Your task to perform on an android device: open app "Speedtest by Ookla" (install if not already installed) Image 0: 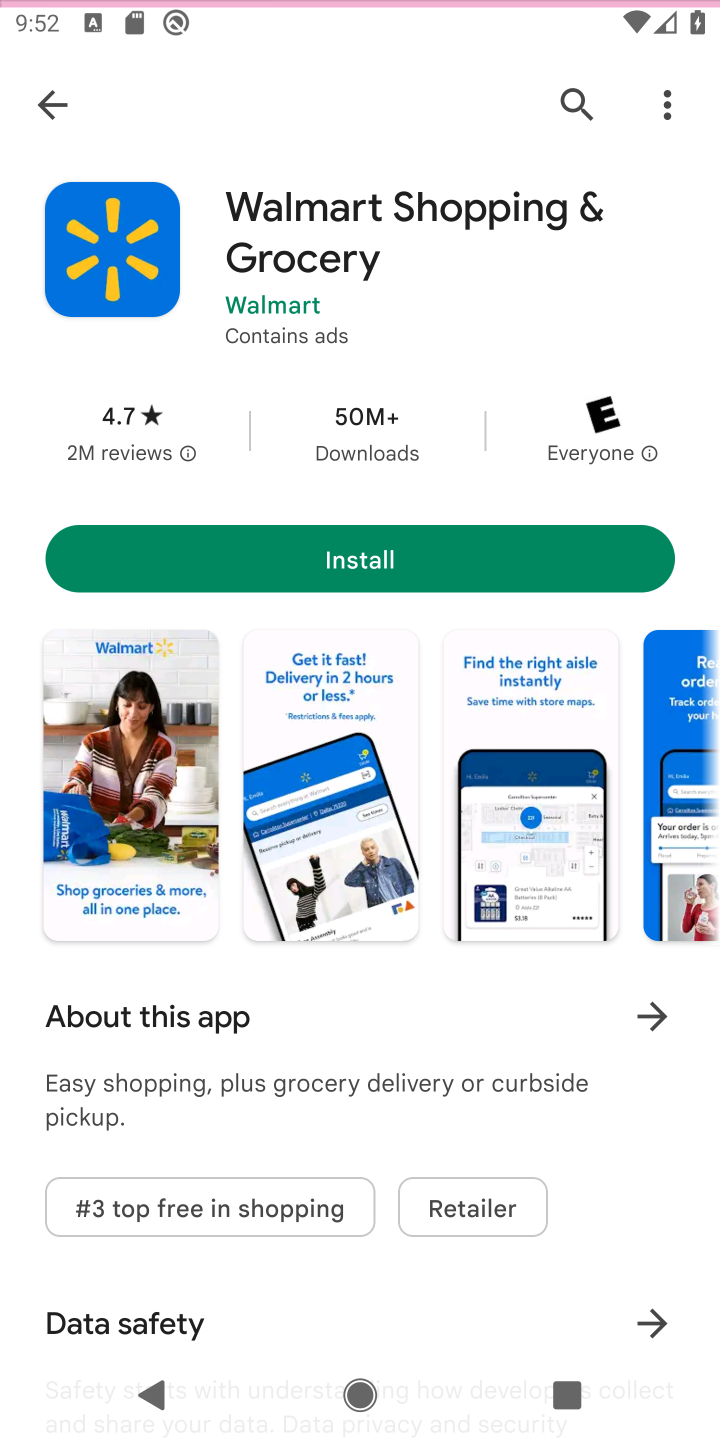
Step 0: press home button
Your task to perform on an android device: open app "Speedtest by Ookla" (install if not already installed) Image 1: 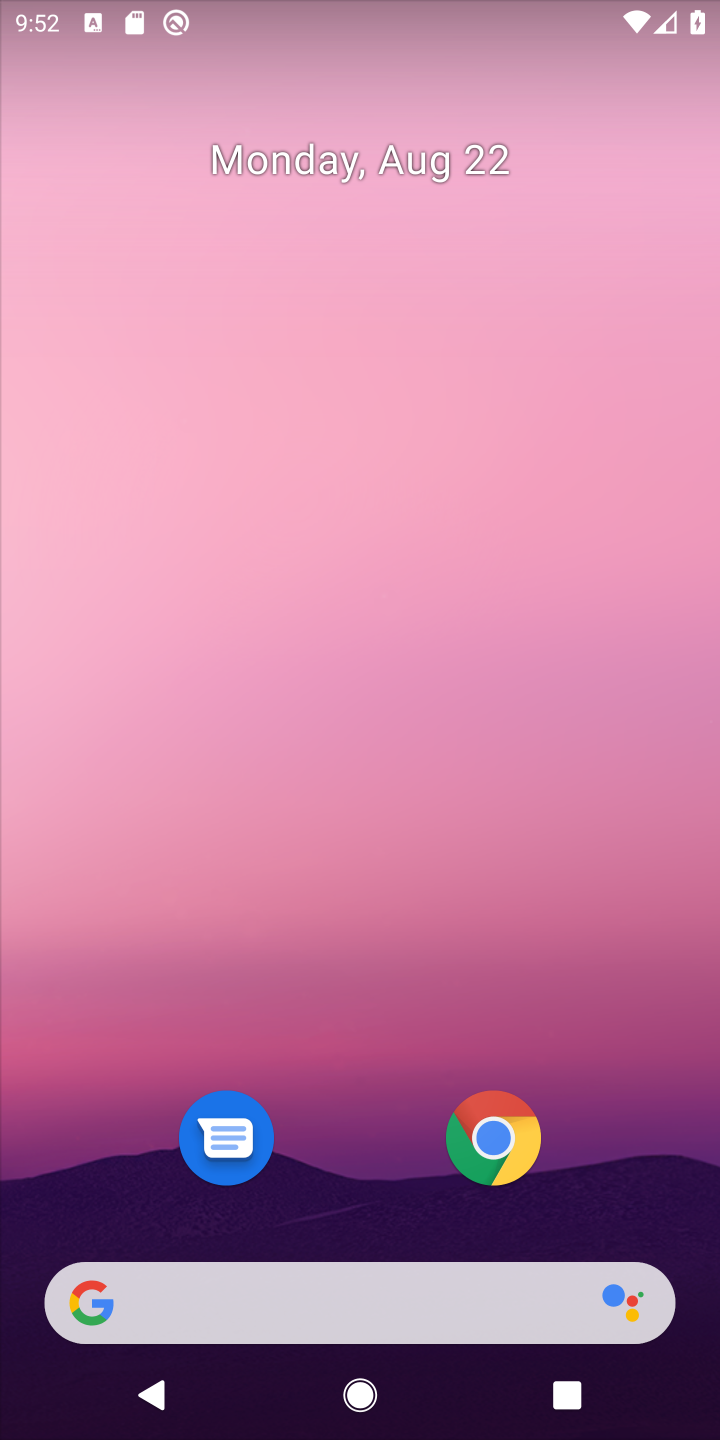
Step 1: drag from (380, 1188) to (388, 10)
Your task to perform on an android device: open app "Speedtest by Ookla" (install if not already installed) Image 2: 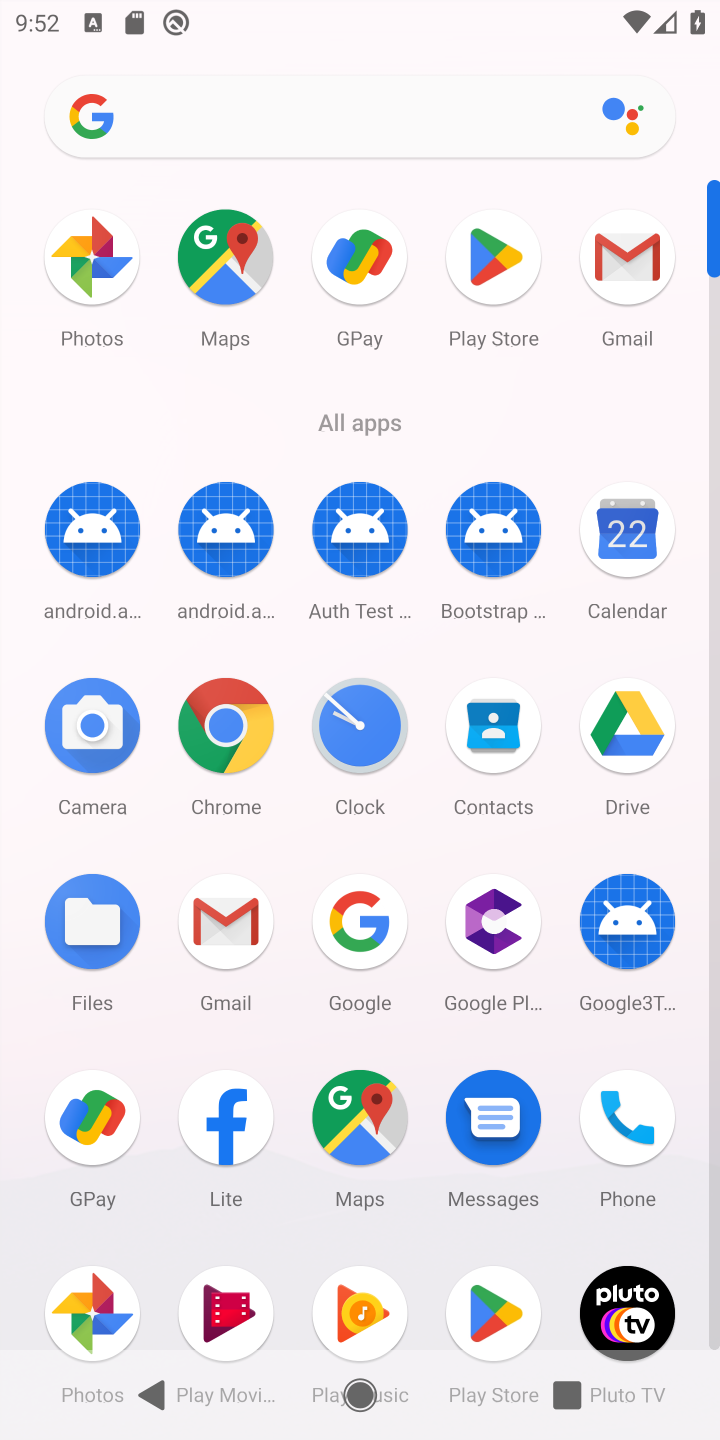
Step 2: click (490, 250)
Your task to perform on an android device: open app "Speedtest by Ookla" (install if not already installed) Image 3: 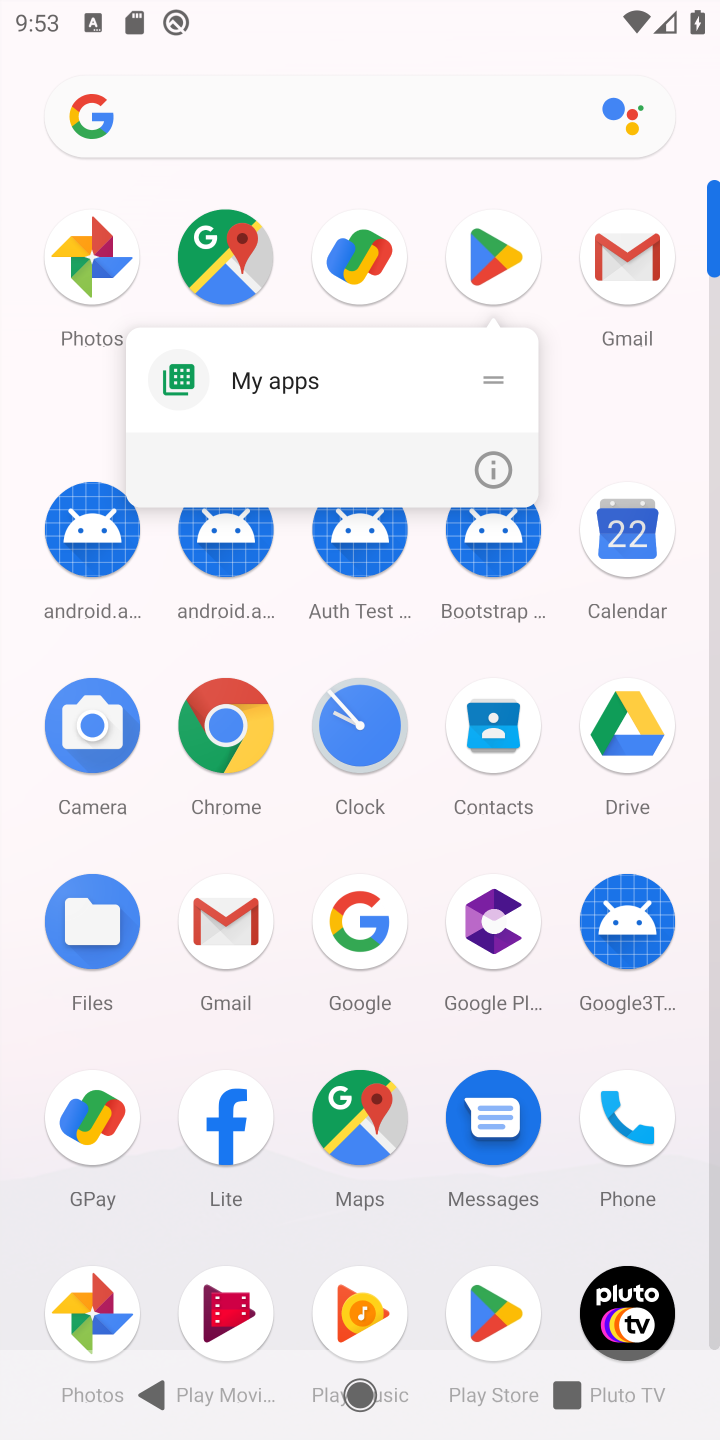
Step 3: click (490, 250)
Your task to perform on an android device: open app "Speedtest by Ookla" (install if not already installed) Image 4: 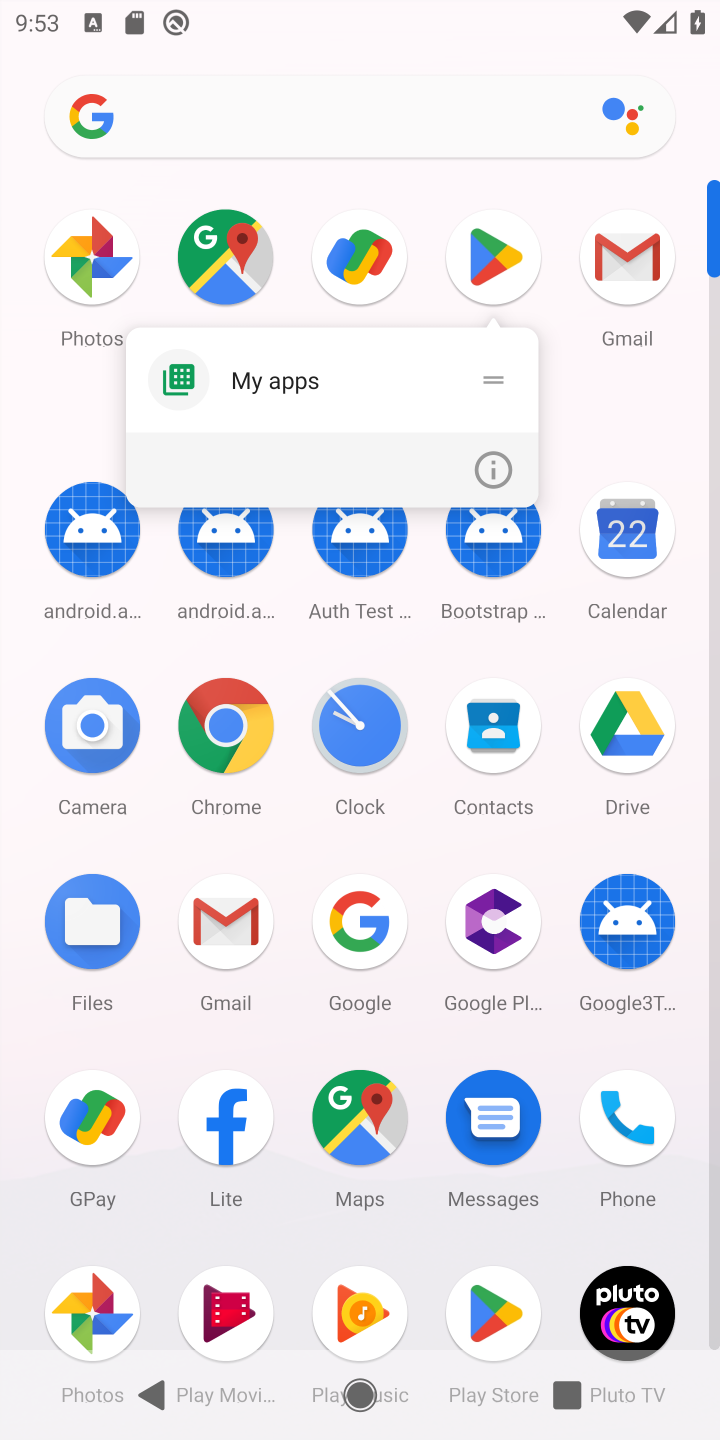
Step 4: click (490, 250)
Your task to perform on an android device: open app "Speedtest by Ookla" (install if not already installed) Image 5: 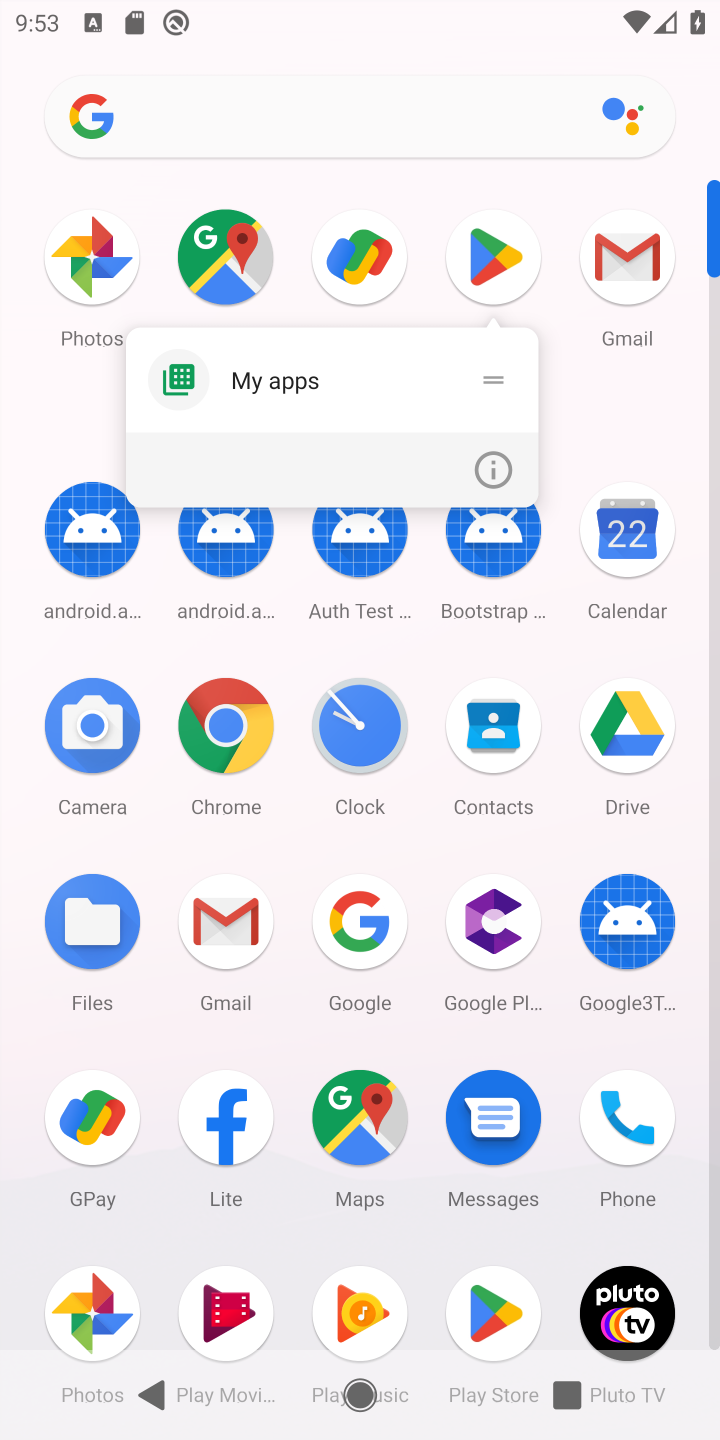
Step 5: click (490, 250)
Your task to perform on an android device: open app "Speedtest by Ookla" (install if not already installed) Image 6: 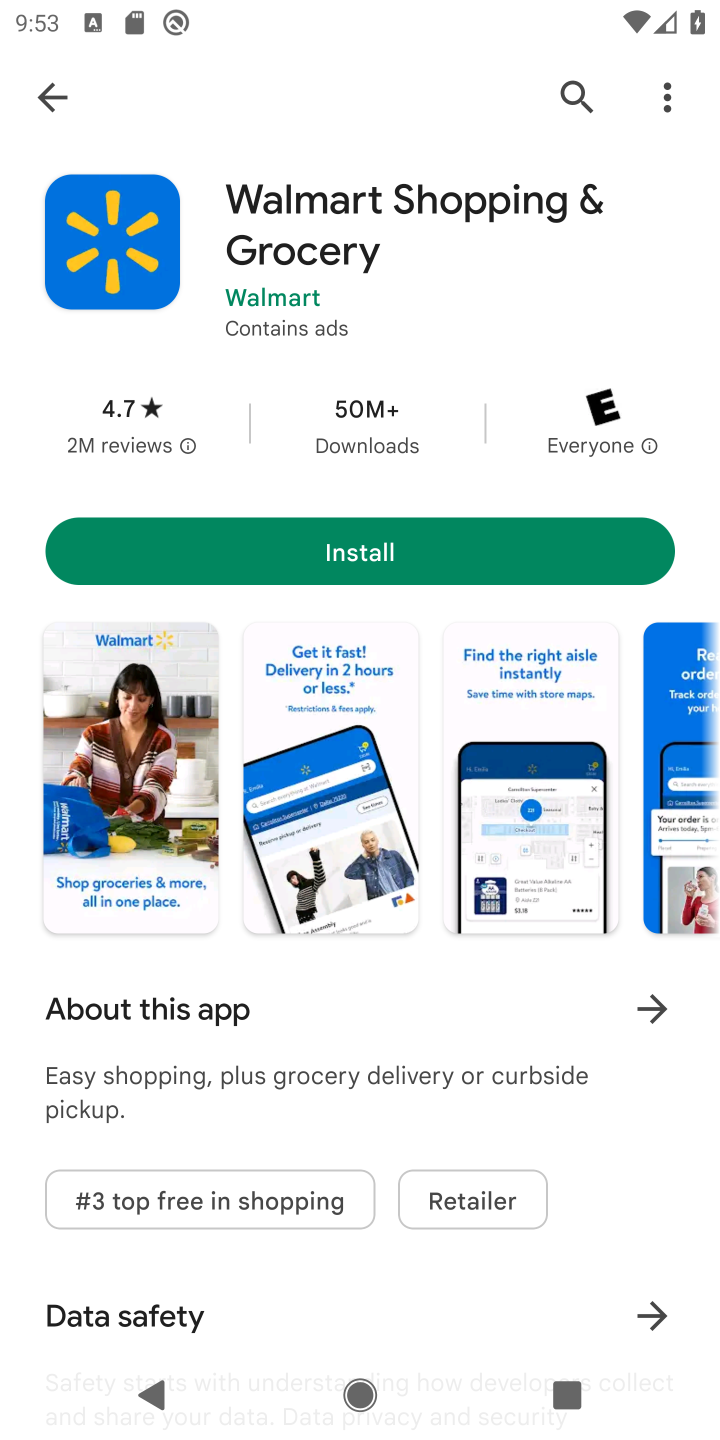
Step 6: click (565, 95)
Your task to perform on an android device: open app "Speedtest by Ookla" (install if not already installed) Image 7: 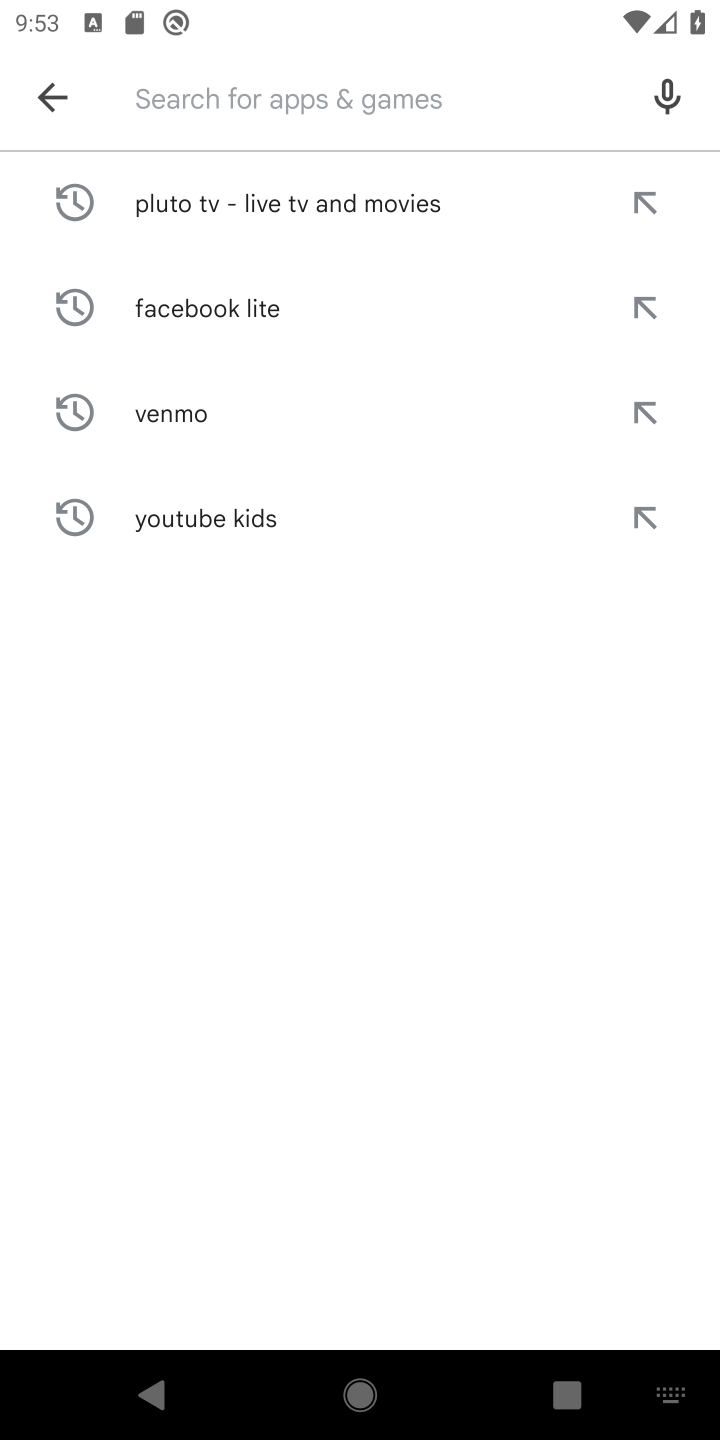
Step 7: type "Speedtest by Ookla"
Your task to perform on an android device: open app "Speedtest by Ookla" (install if not already installed) Image 8: 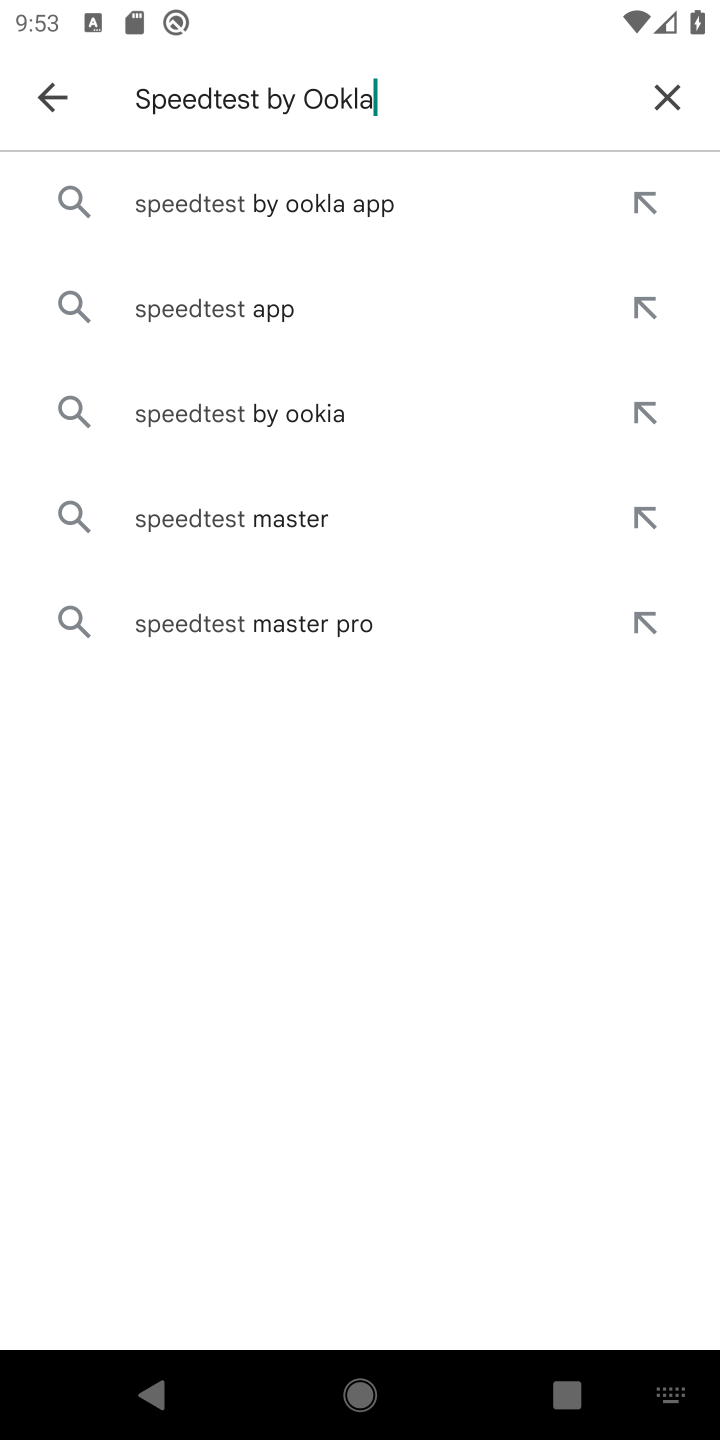
Step 8: type ""
Your task to perform on an android device: open app "Speedtest by Ookla" (install if not already installed) Image 9: 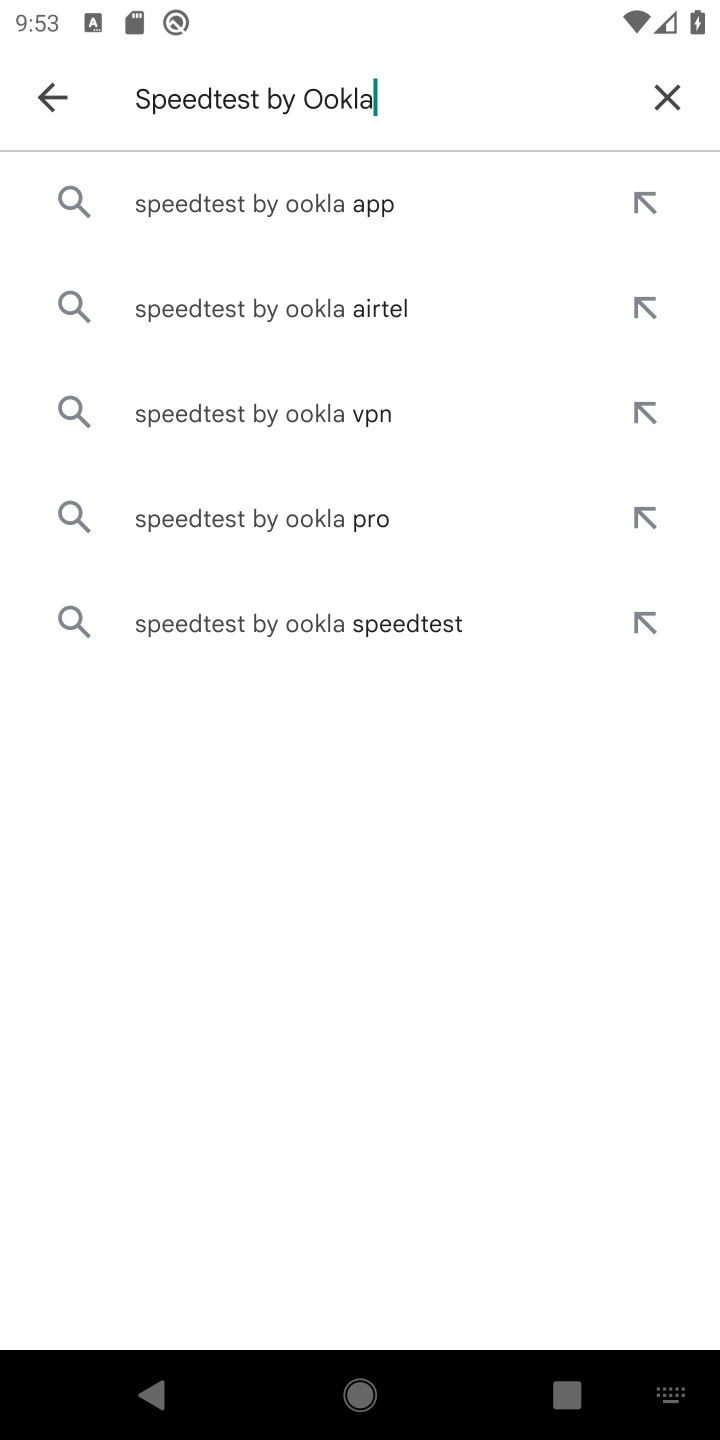
Step 9: click (289, 199)
Your task to perform on an android device: open app "Speedtest by Ookla" (install if not already installed) Image 10: 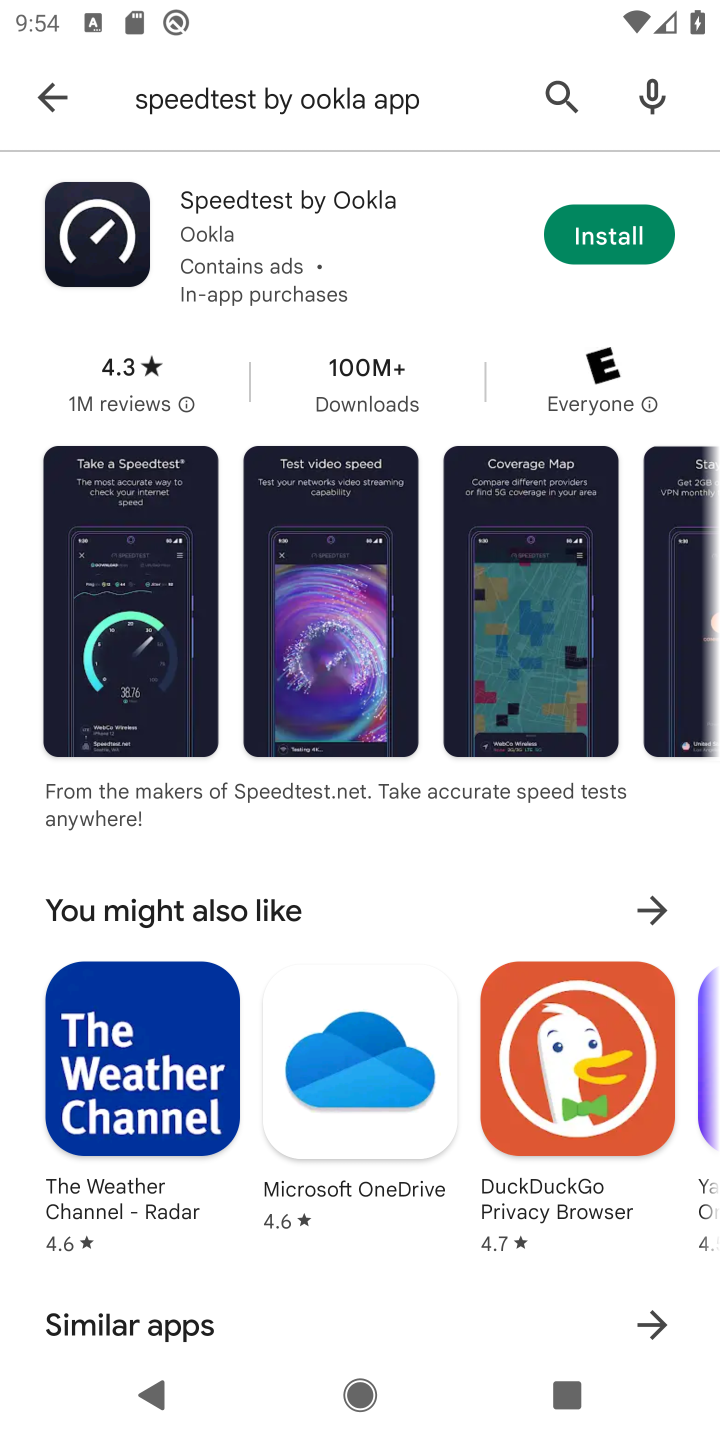
Step 10: click (613, 233)
Your task to perform on an android device: open app "Speedtest by Ookla" (install if not already installed) Image 11: 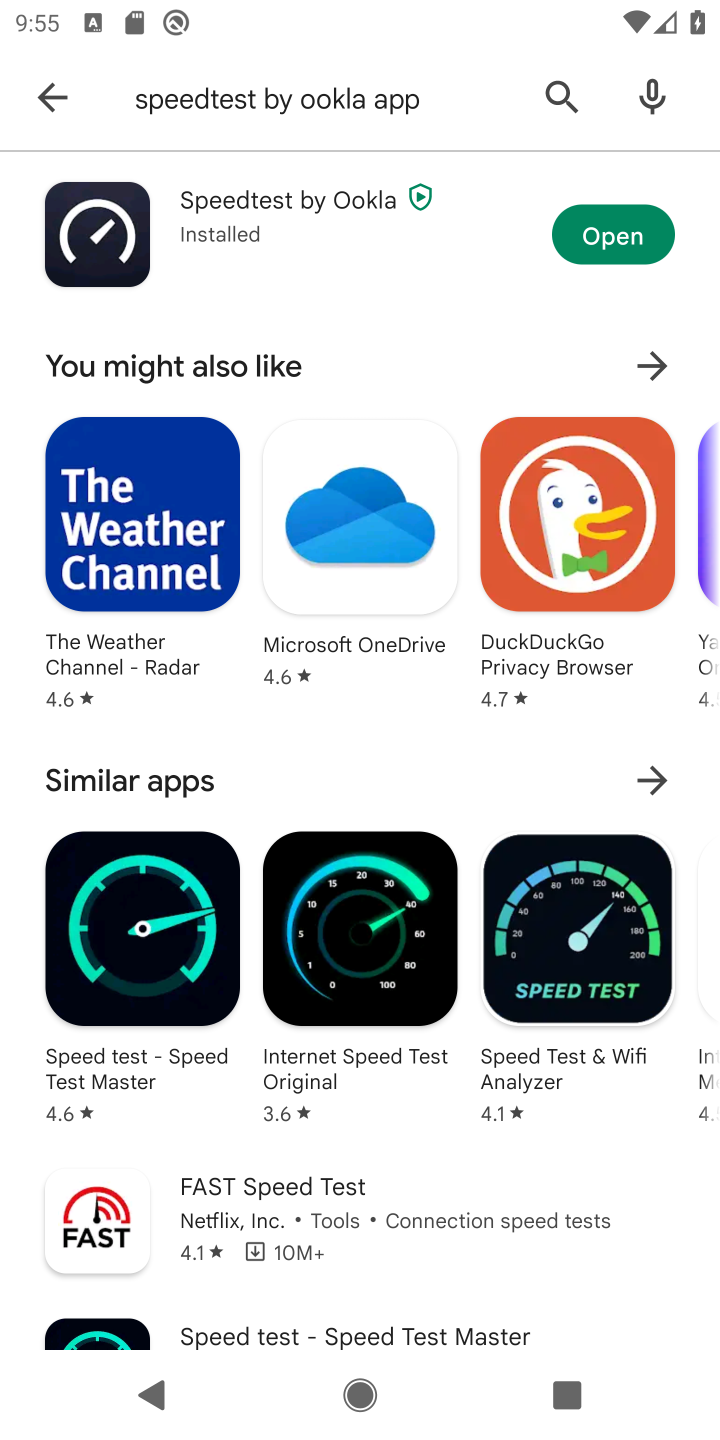
Step 11: click (612, 223)
Your task to perform on an android device: open app "Speedtest by Ookla" (install if not already installed) Image 12: 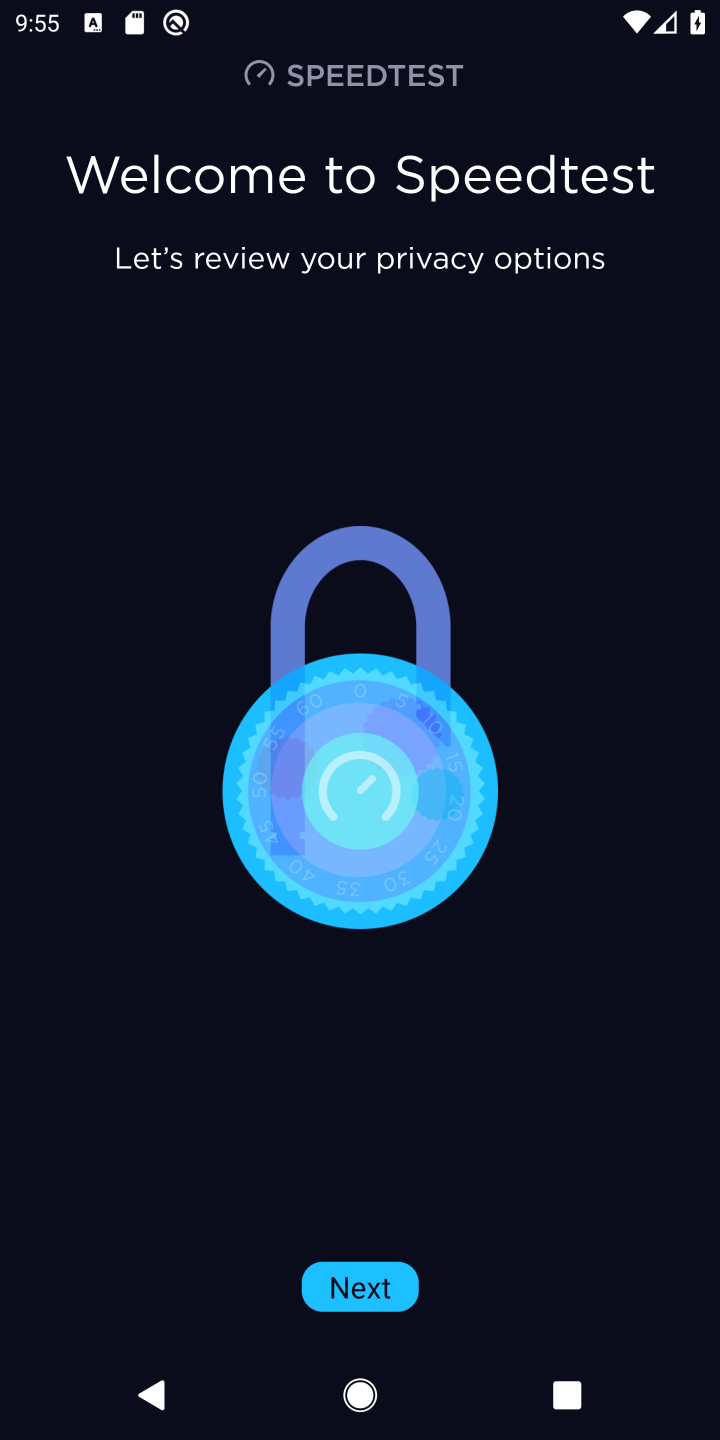
Step 12: click (356, 1289)
Your task to perform on an android device: open app "Speedtest by Ookla" (install if not already installed) Image 13: 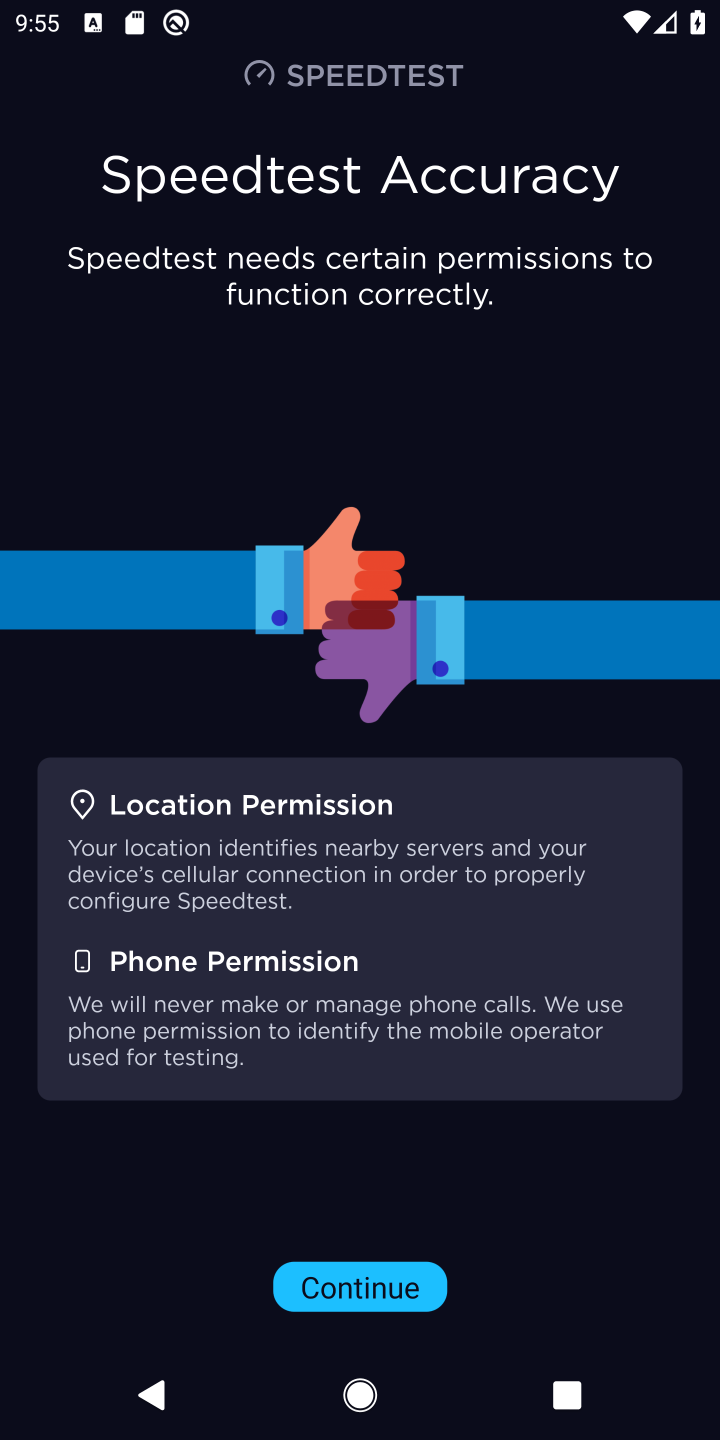
Step 13: click (368, 1283)
Your task to perform on an android device: open app "Speedtest by Ookla" (install if not already installed) Image 14: 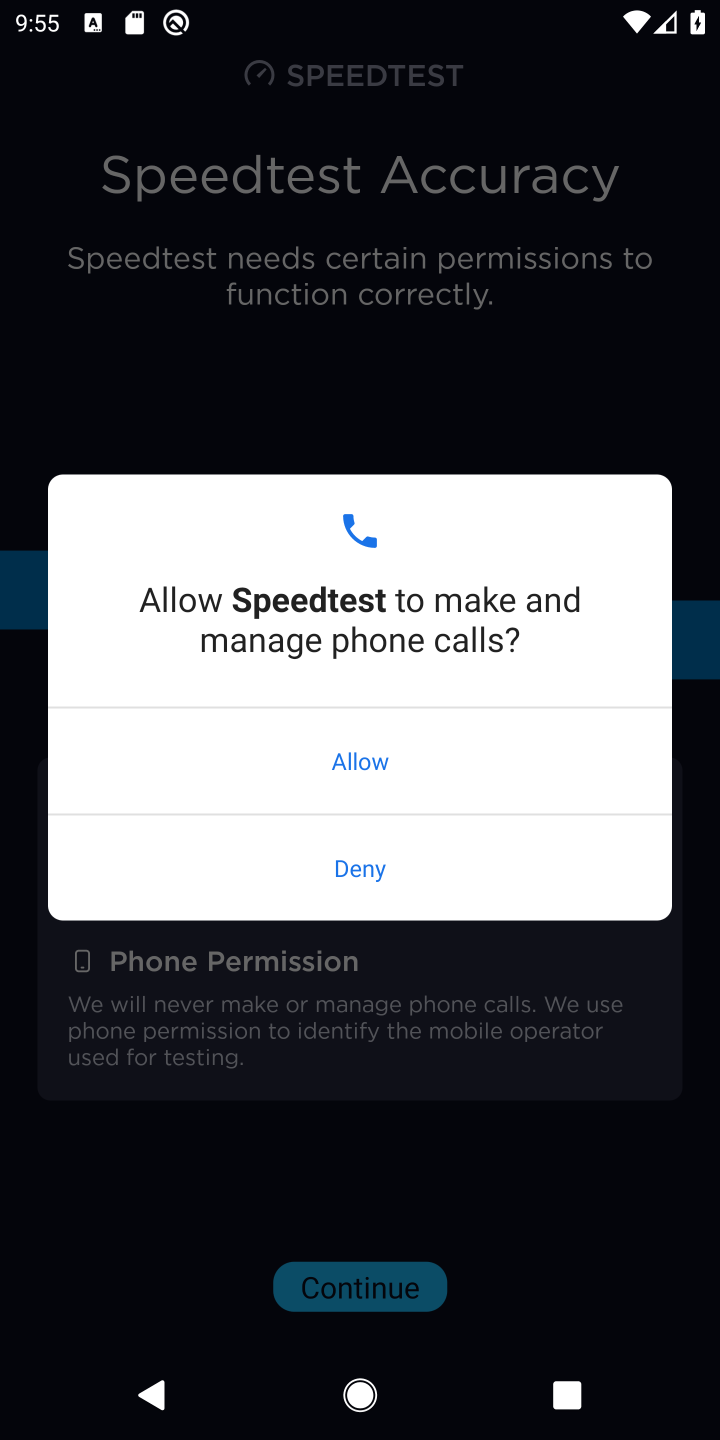
Step 14: click (352, 774)
Your task to perform on an android device: open app "Speedtest by Ookla" (install if not already installed) Image 15: 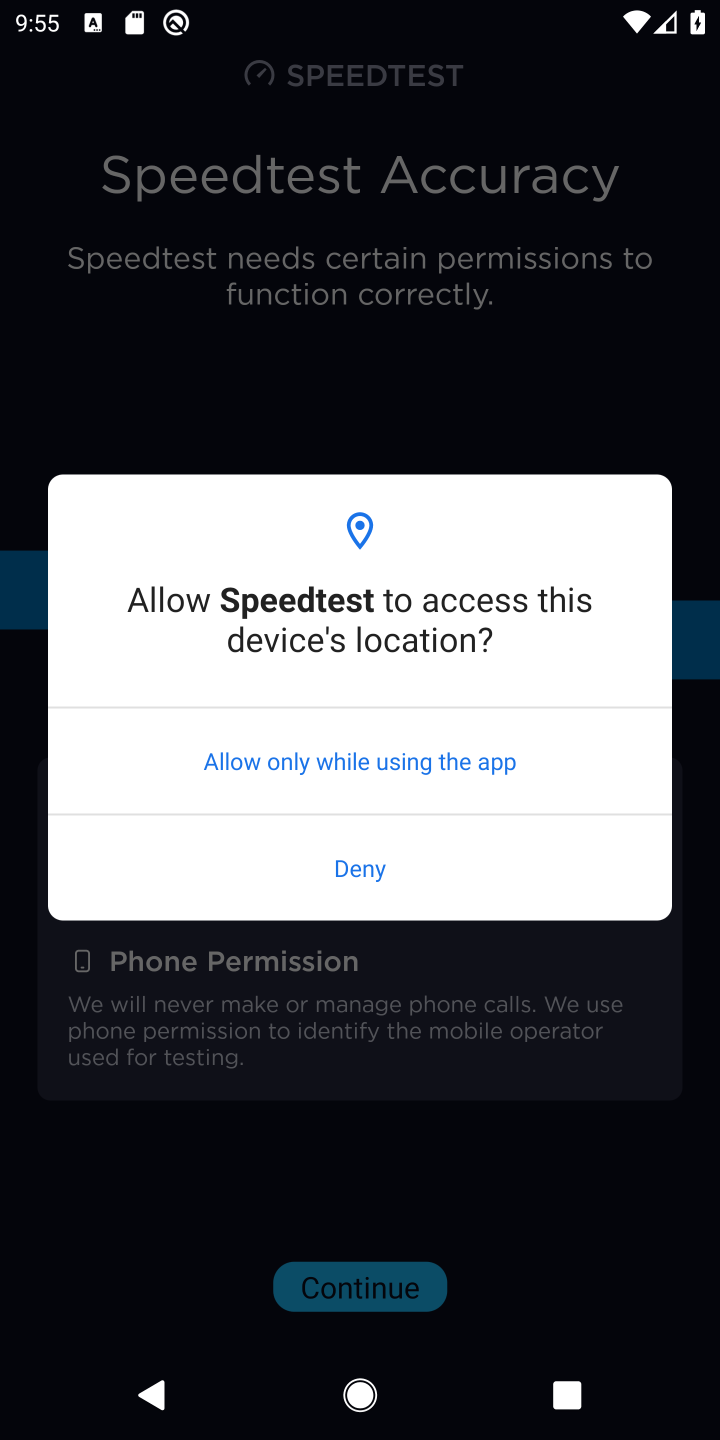
Step 15: click (353, 756)
Your task to perform on an android device: open app "Speedtest by Ookla" (install if not already installed) Image 16: 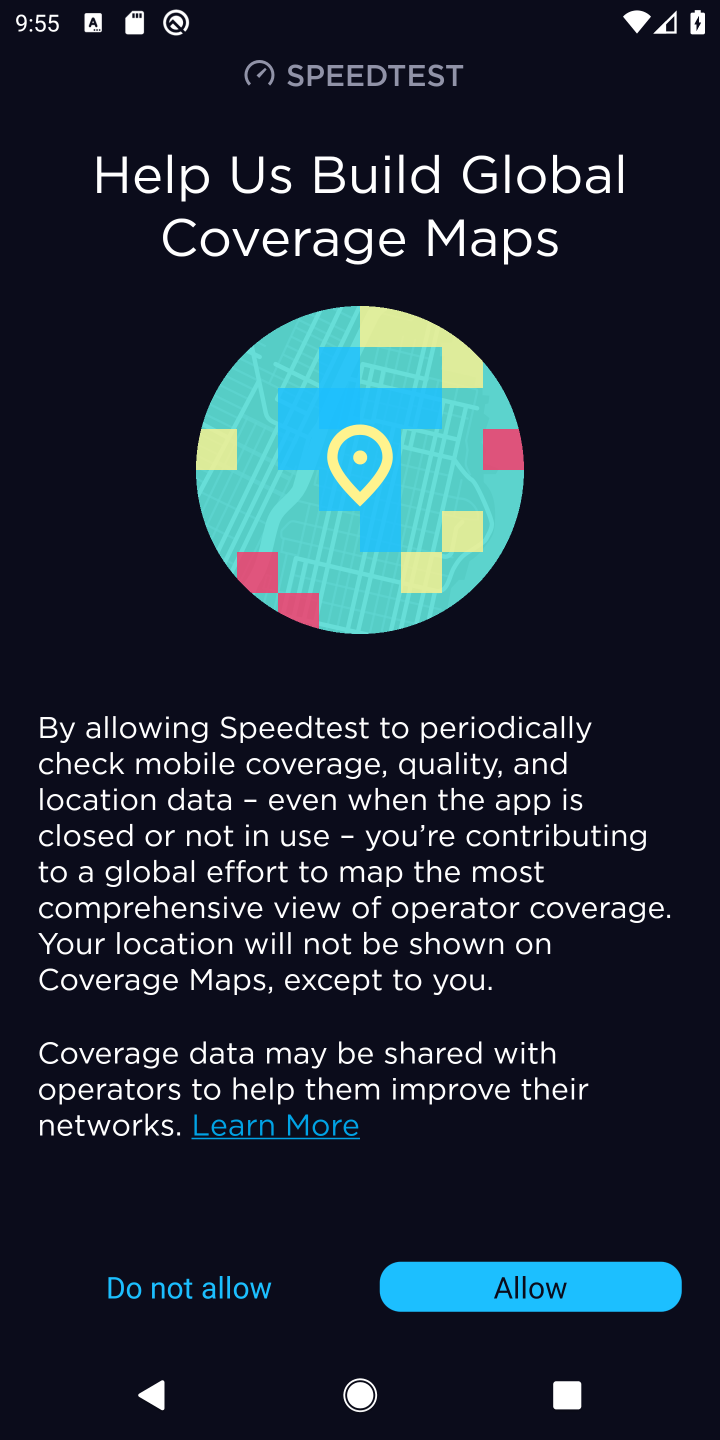
Step 16: click (530, 1277)
Your task to perform on an android device: open app "Speedtest by Ookla" (install if not already installed) Image 17: 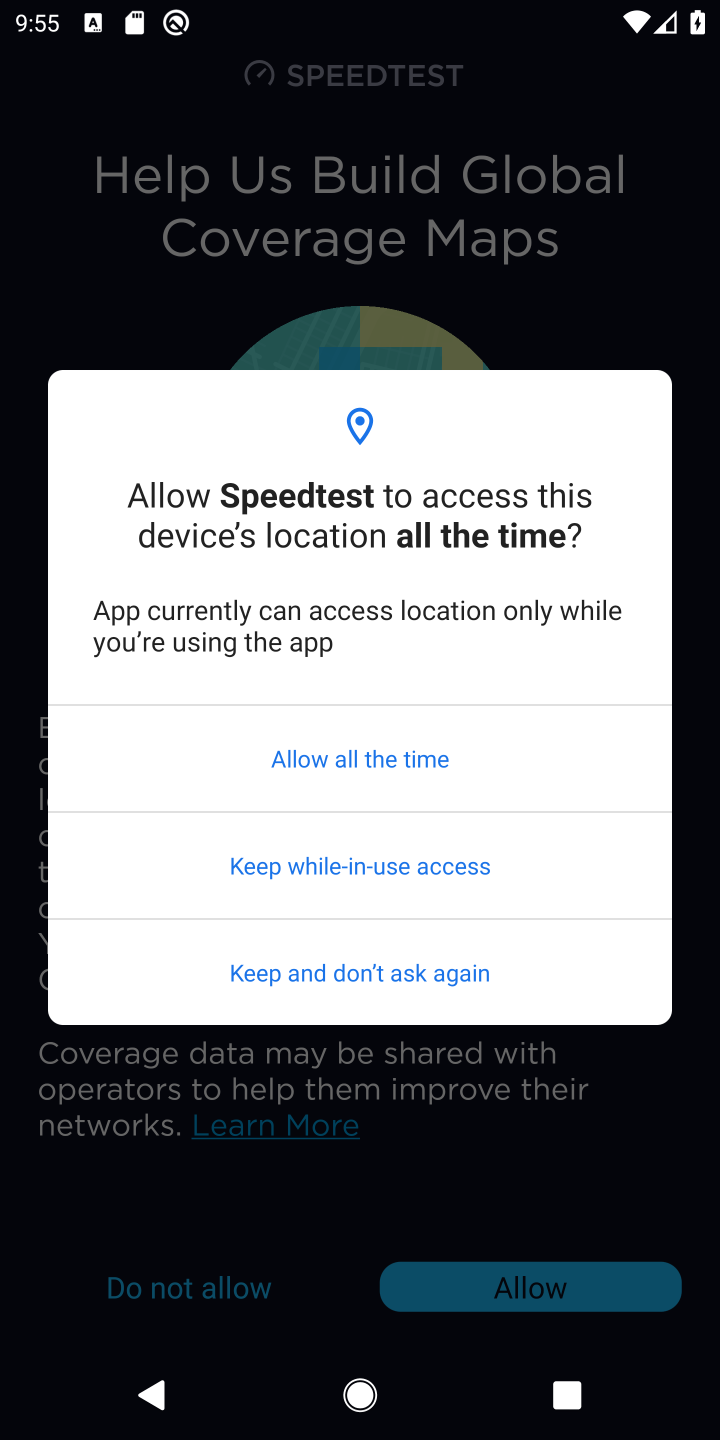
Step 17: click (374, 778)
Your task to perform on an android device: open app "Speedtest by Ookla" (install if not already installed) Image 18: 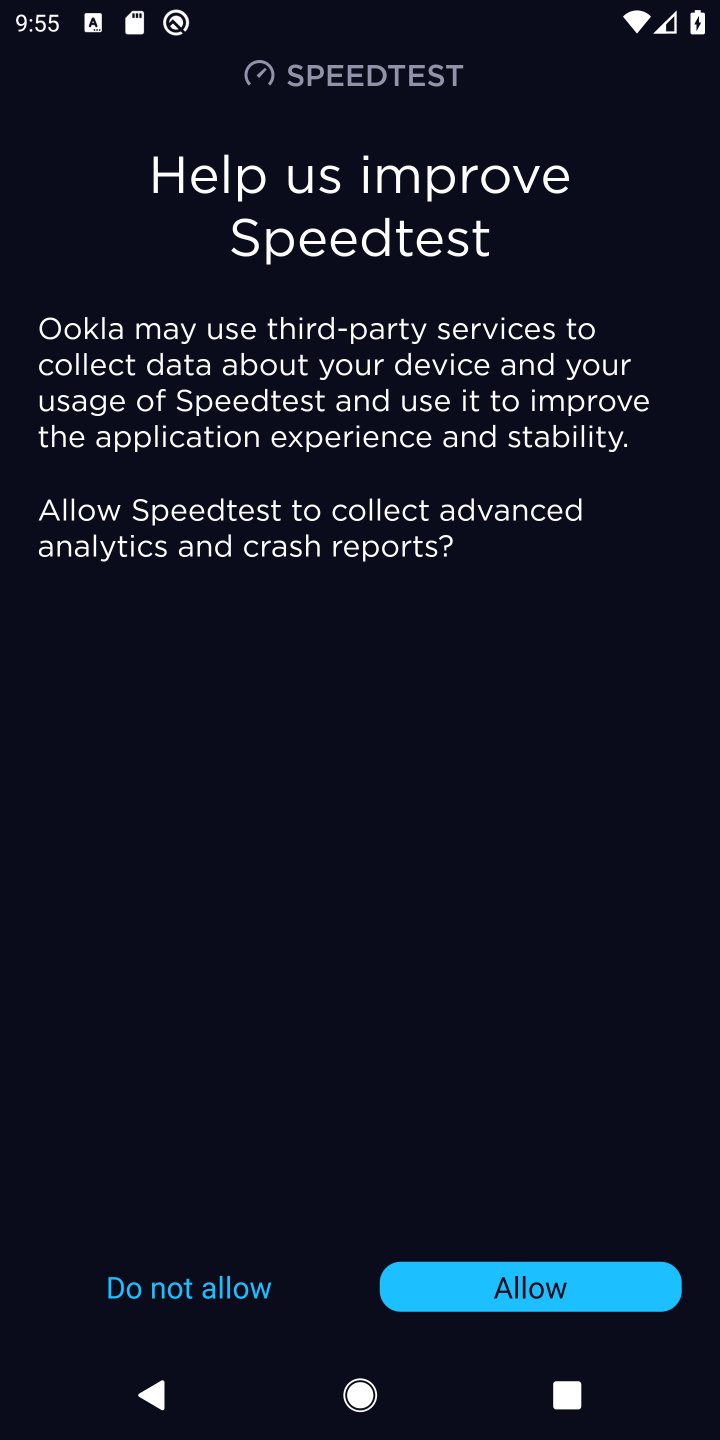
Step 18: click (528, 1279)
Your task to perform on an android device: open app "Speedtest by Ookla" (install if not already installed) Image 19: 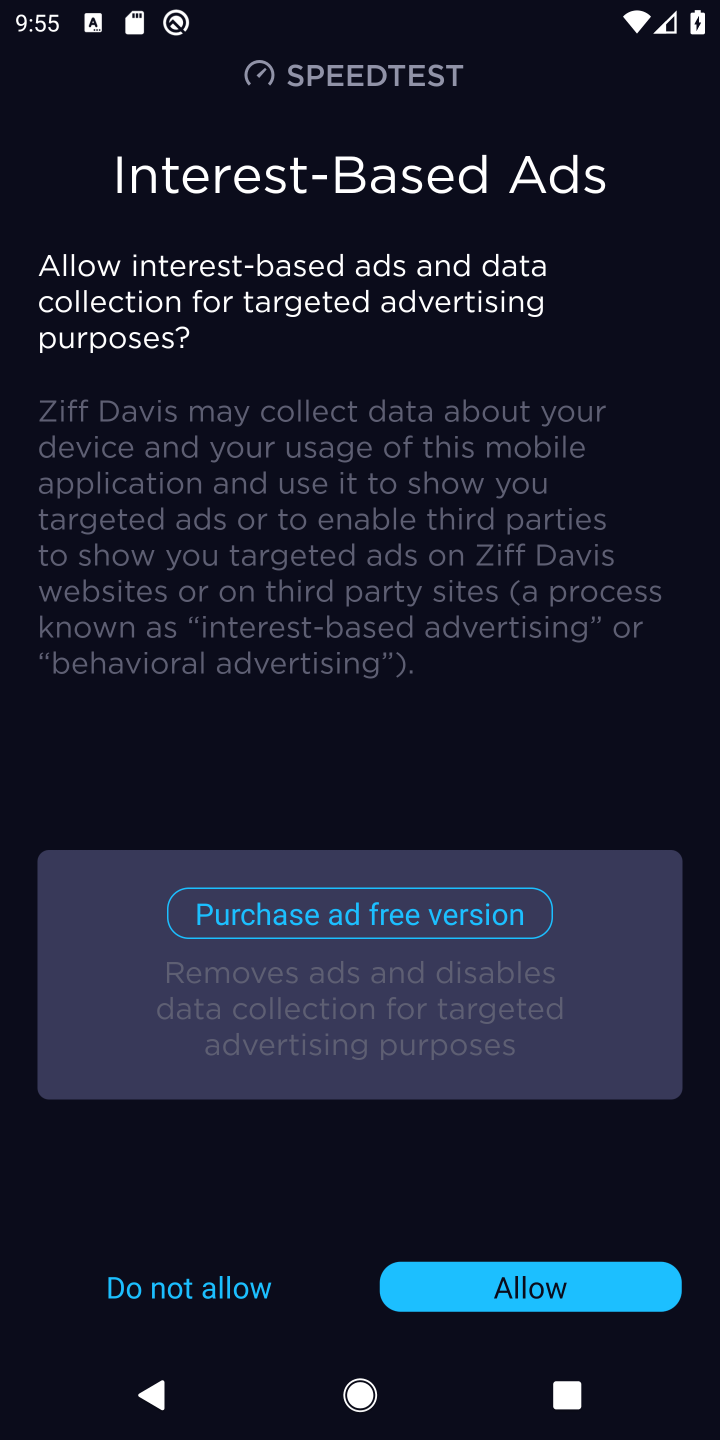
Step 19: click (527, 1281)
Your task to perform on an android device: open app "Speedtest by Ookla" (install if not already installed) Image 20: 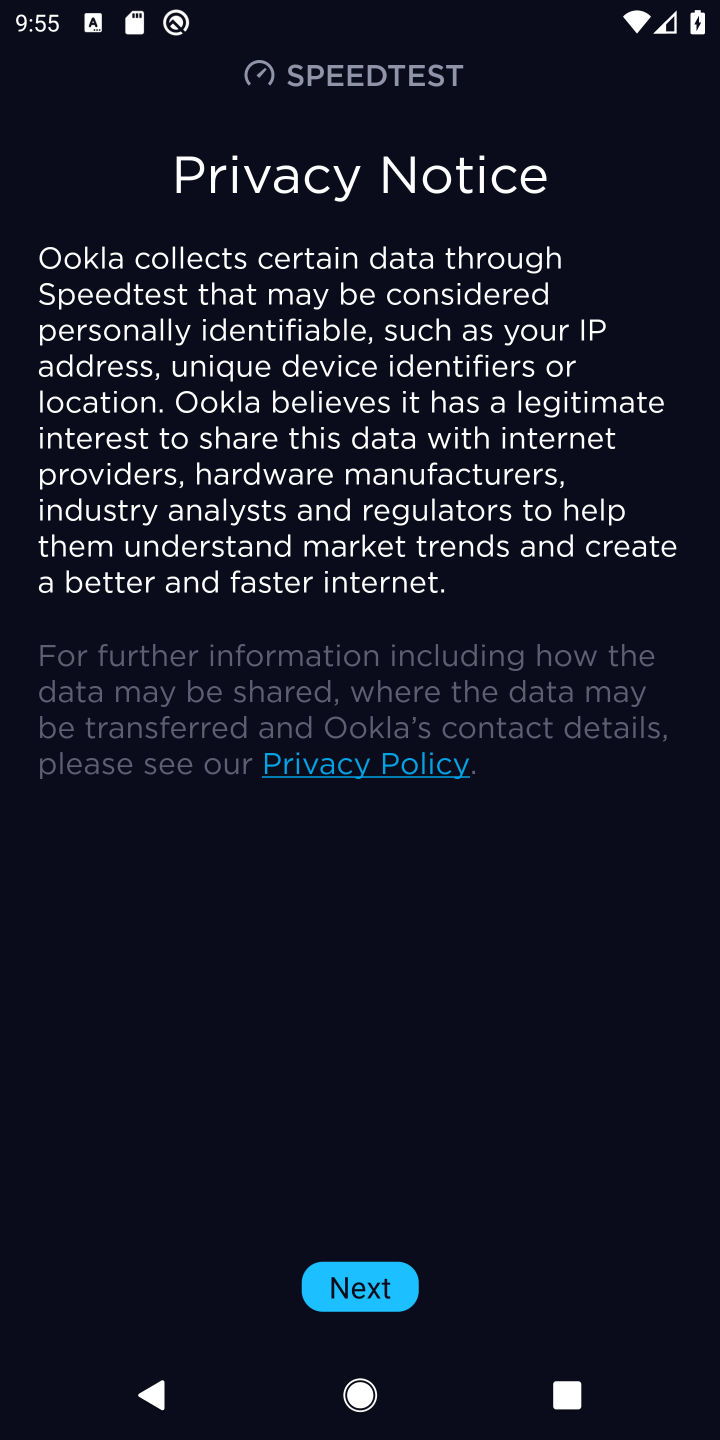
Step 20: click (353, 1281)
Your task to perform on an android device: open app "Speedtest by Ookla" (install if not already installed) Image 21: 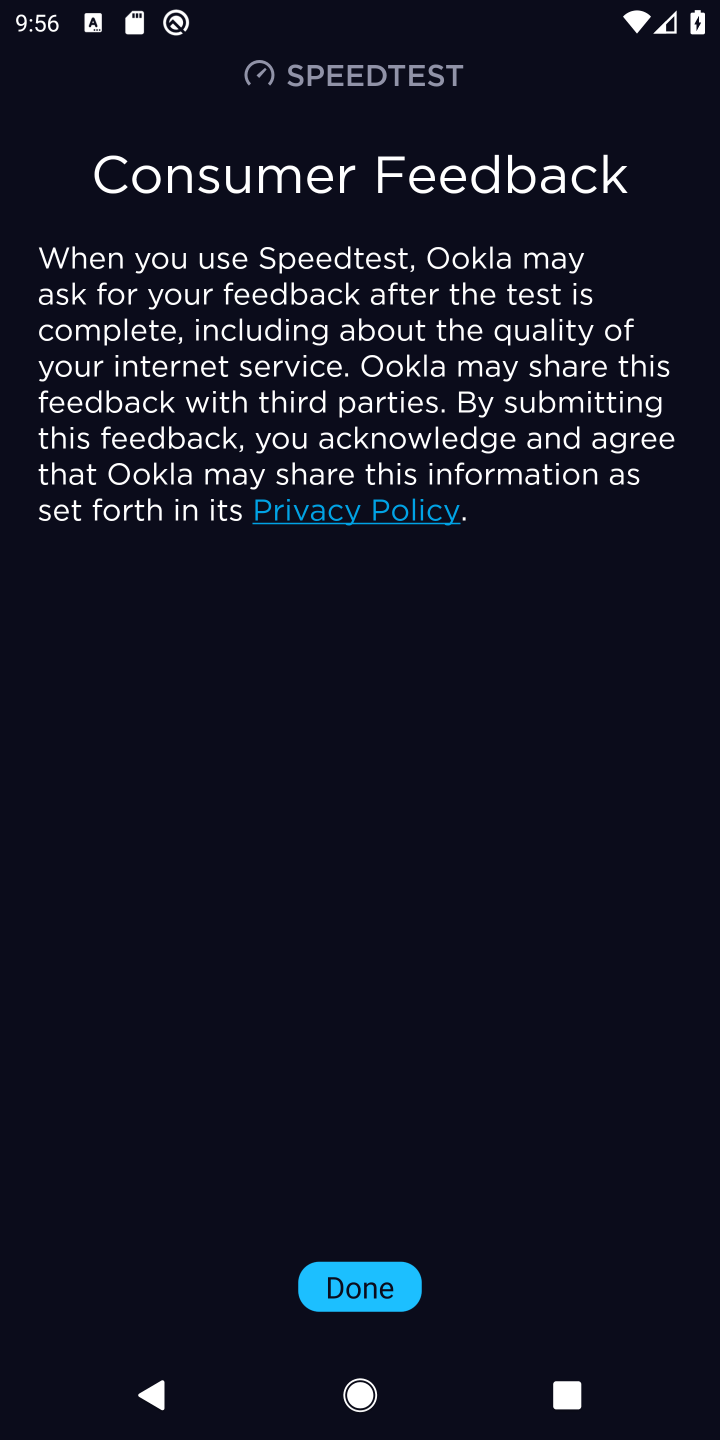
Step 21: click (358, 1277)
Your task to perform on an android device: open app "Speedtest by Ookla" (install if not already installed) Image 22: 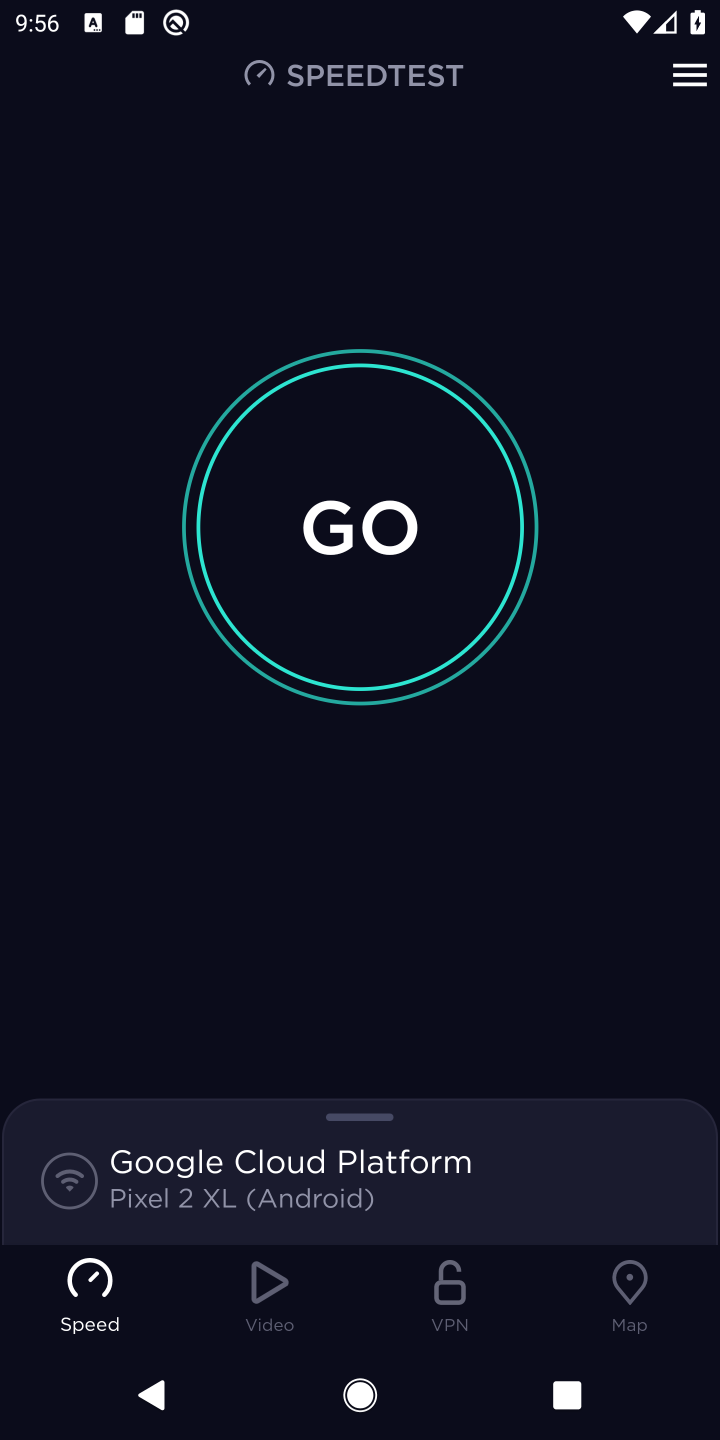
Step 22: task complete